Your task to perform on an android device: open app "Adobe Express: Graphic Design" (install if not already installed) and enter user name: "deliveries@gmail.com" and password: "regimentation" Image 0: 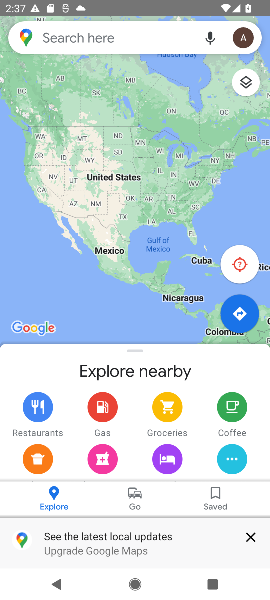
Step 0: press home button
Your task to perform on an android device: open app "Adobe Express: Graphic Design" (install if not already installed) and enter user name: "deliveries@gmail.com" and password: "regimentation" Image 1: 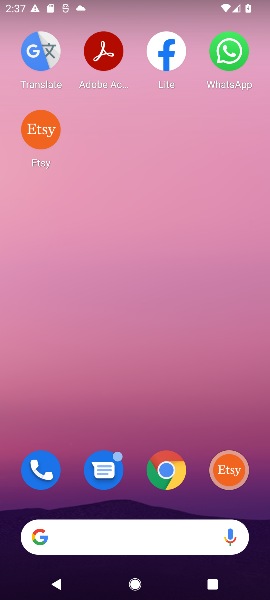
Step 1: drag from (99, 491) to (141, 104)
Your task to perform on an android device: open app "Adobe Express: Graphic Design" (install if not already installed) and enter user name: "deliveries@gmail.com" and password: "regimentation" Image 2: 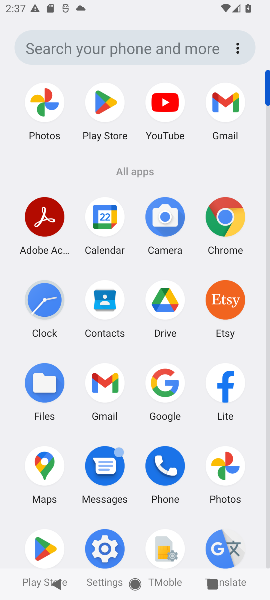
Step 2: click (39, 536)
Your task to perform on an android device: open app "Adobe Express: Graphic Design" (install if not already installed) and enter user name: "deliveries@gmail.com" and password: "regimentation" Image 3: 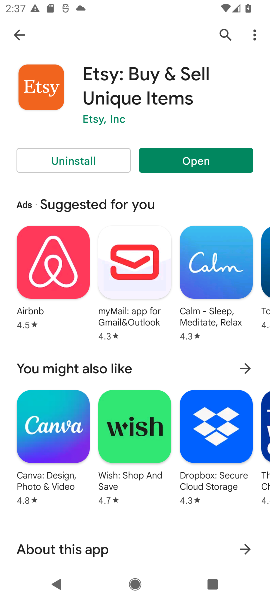
Step 3: click (12, 32)
Your task to perform on an android device: open app "Adobe Express: Graphic Design" (install if not already installed) and enter user name: "deliveries@gmail.com" and password: "regimentation" Image 4: 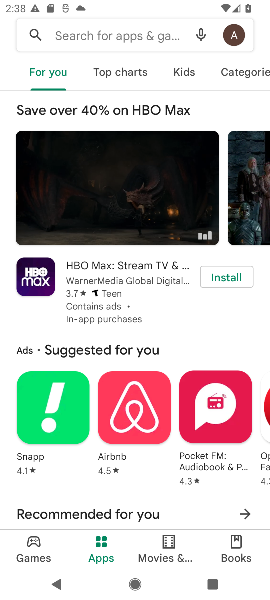
Step 4: click (152, 25)
Your task to perform on an android device: open app "Adobe Express: Graphic Design" (install if not already installed) and enter user name: "deliveries@gmail.com" and password: "regimentation" Image 5: 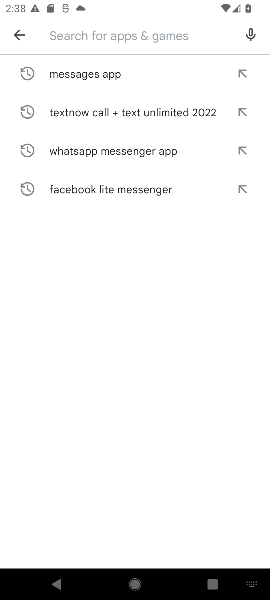
Step 5: type "Adobe Express: Graphic Design "
Your task to perform on an android device: open app "Adobe Express: Graphic Design" (install if not already installed) and enter user name: "deliveries@gmail.com" and password: "regimentation" Image 6: 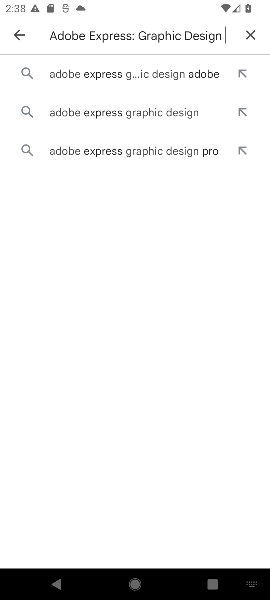
Step 6: click (118, 72)
Your task to perform on an android device: open app "Adobe Express: Graphic Design" (install if not already installed) and enter user name: "deliveries@gmail.com" and password: "regimentation" Image 7: 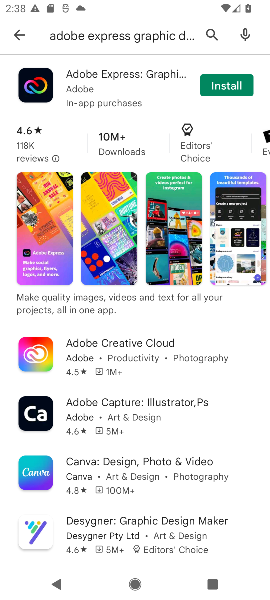
Step 7: click (228, 78)
Your task to perform on an android device: open app "Adobe Express: Graphic Design" (install if not already installed) and enter user name: "deliveries@gmail.com" and password: "regimentation" Image 8: 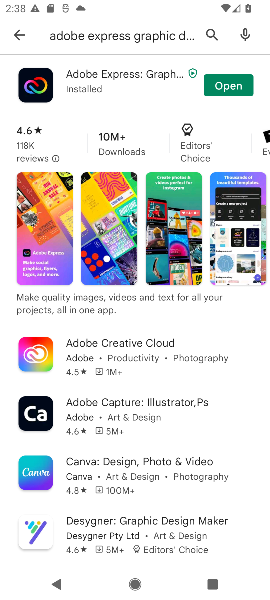
Step 8: click (227, 83)
Your task to perform on an android device: open app "Adobe Express: Graphic Design" (install if not already installed) and enter user name: "deliveries@gmail.com" and password: "regimentation" Image 9: 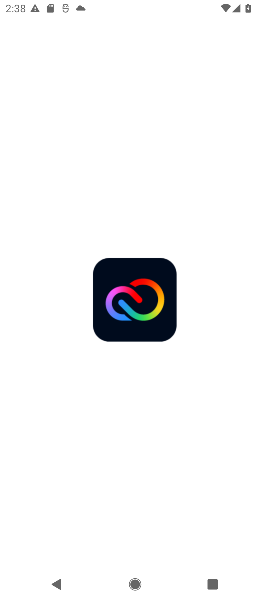
Step 9: task complete